Your task to perform on an android device: see tabs open on other devices in the chrome app Image 0: 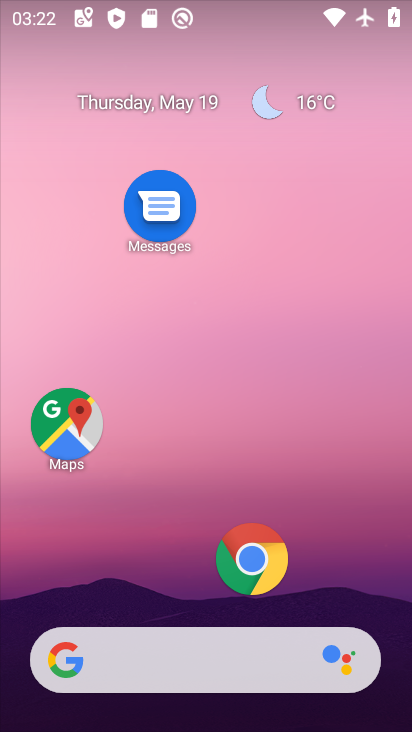
Step 0: click (261, 542)
Your task to perform on an android device: see tabs open on other devices in the chrome app Image 1: 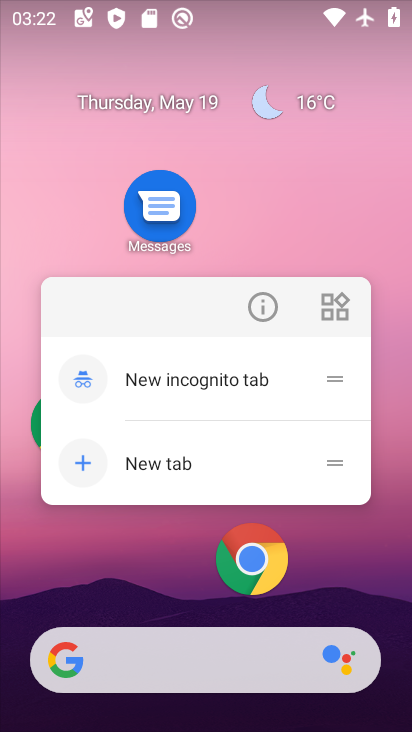
Step 1: click (238, 551)
Your task to perform on an android device: see tabs open on other devices in the chrome app Image 2: 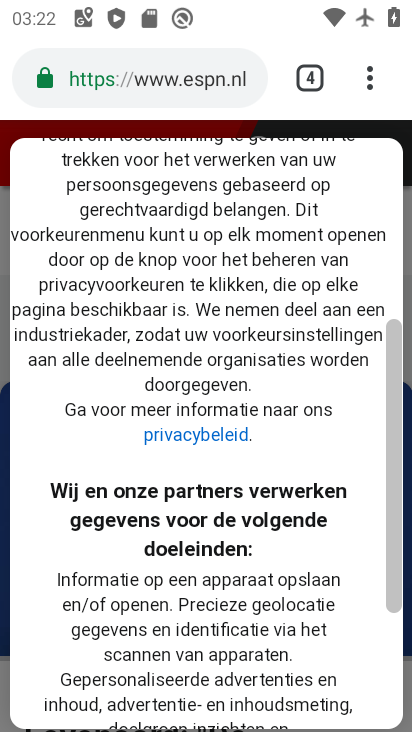
Step 2: drag from (360, 90) to (116, 370)
Your task to perform on an android device: see tabs open on other devices in the chrome app Image 3: 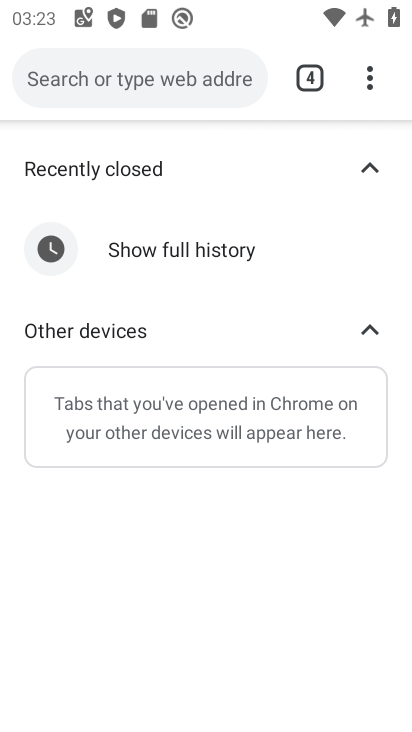
Step 3: click (318, 70)
Your task to perform on an android device: see tabs open on other devices in the chrome app Image 4: 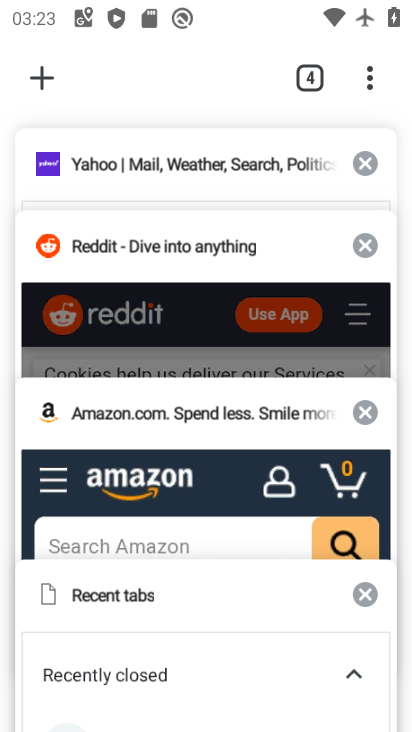
Step 4: click (372, 88)
Your task to perform on an android device: see tabs open on other devices in the chrome app Image 5: 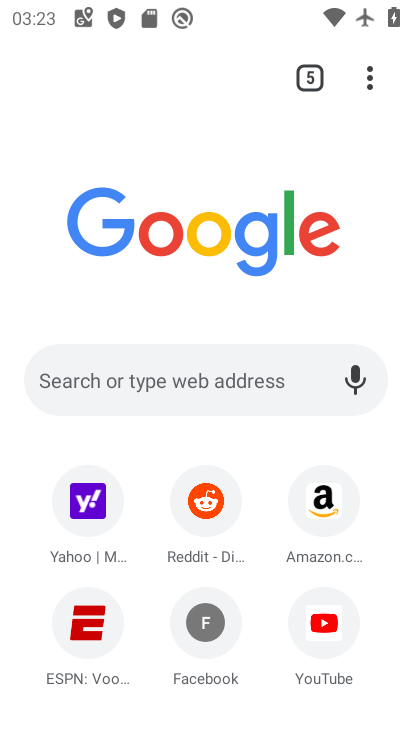
Step 5: task complete